Your task to perform on an android device: turn on translation in the chrome app Image 0: 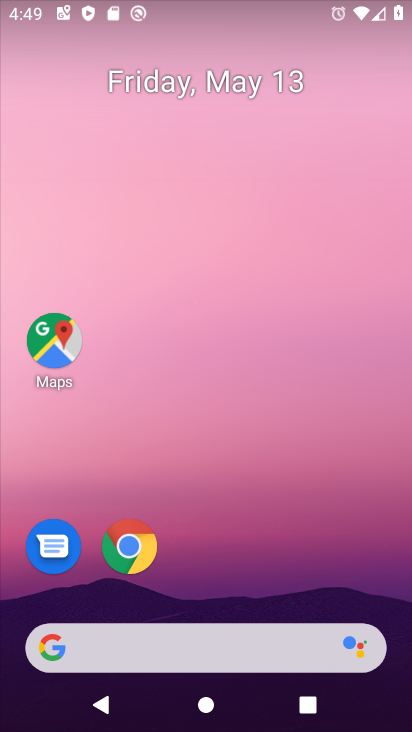
Step 0: click (143, 554)
Your task to perform on an android device: turn on translation in the chrome app Image 1: 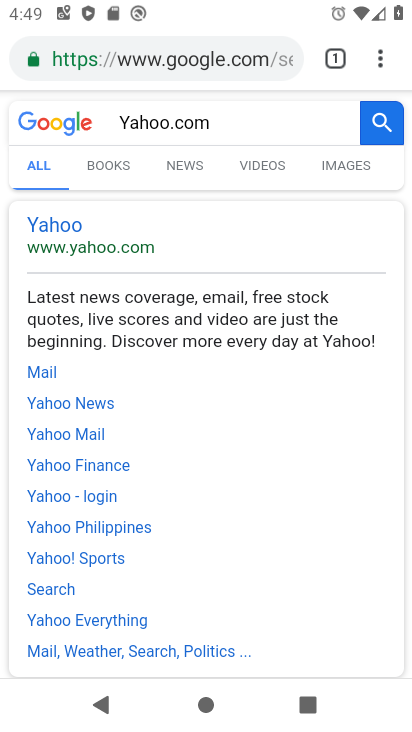
Step 1: click (384, 58)
Your task to perform on an android device: turn on translation in the chrome app Image 2: 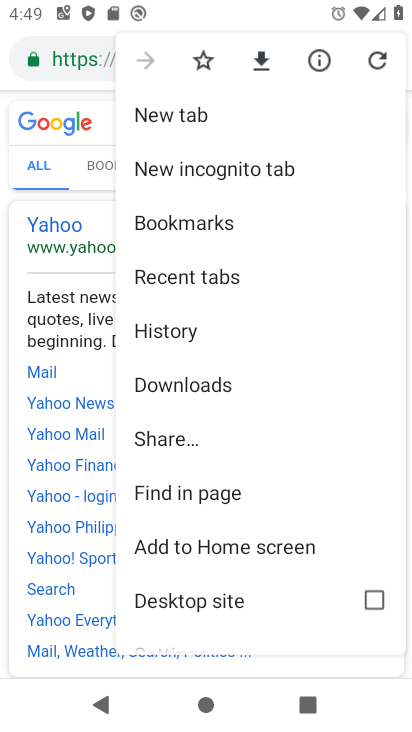
Step 2: drag from (200, 540) to (259, 218)
Your task to perform on an android device: turn on translation in the chrome app Image 3: 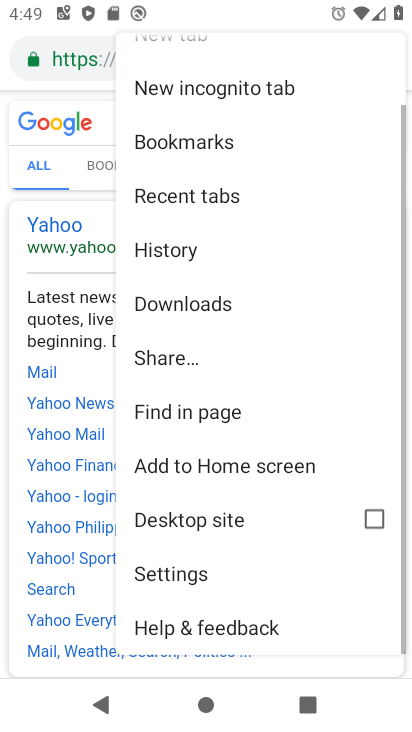
Step 3: click (176, 577)
Your task to perform on an android device: turn on translation in the chrome app Image 4: 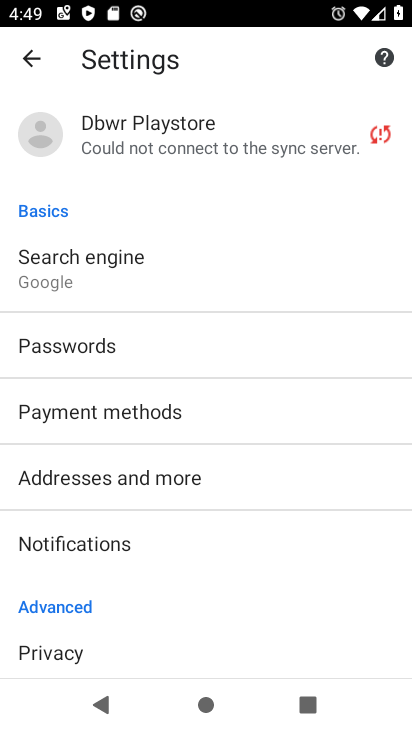
Step 4: drag from (126, 547) to (201, 161)
Your task to perform on an android device: turn on translation in the chrome app Image 5: 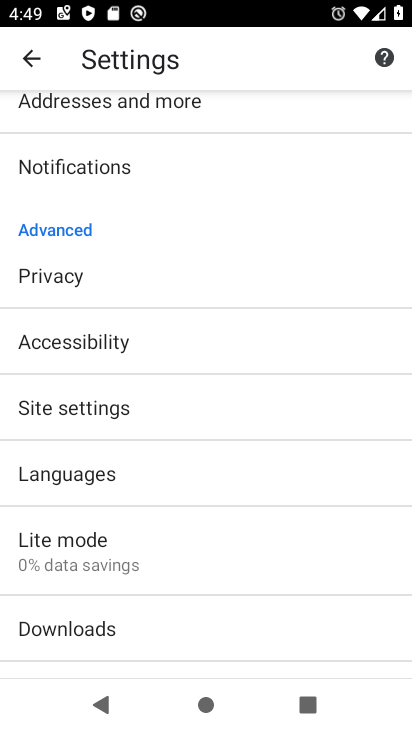
Step 5: click (95, 481)
Your task to perform on an android device: turn on translation in the chrome app Image 6: 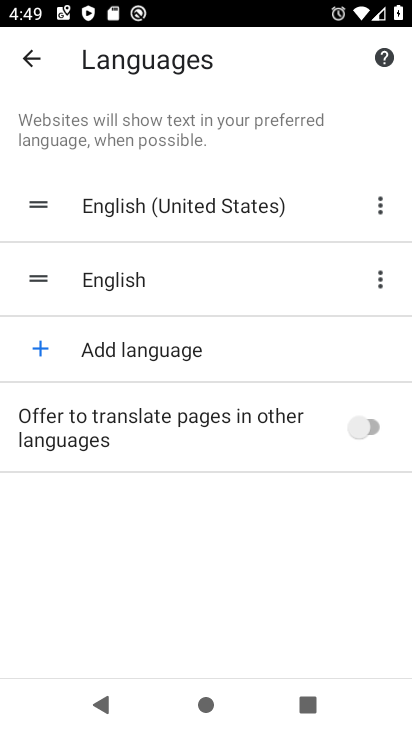
Step 6: click (357, 426)
Your task to perform on an android device: turn on translation in the chrome app Image 7: 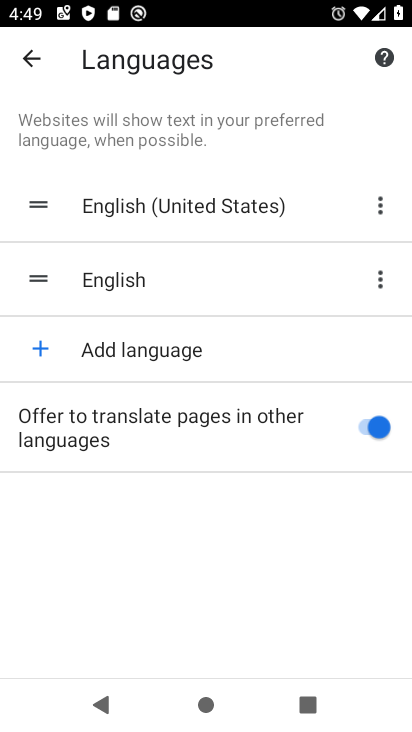
Step 7: task complete